Your task to perform on an android device: Search for cool wooden wall art on Etsy. Image 0: 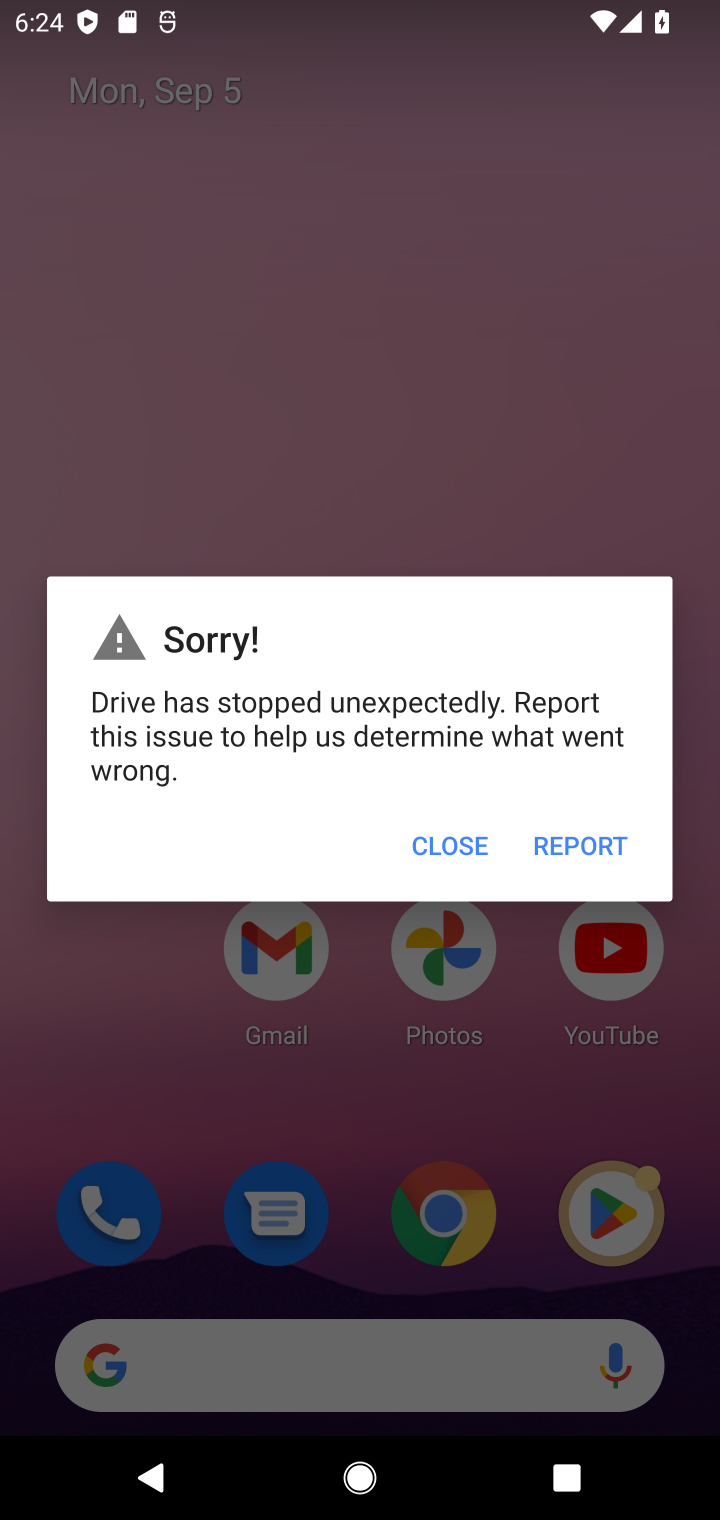
Step 0: press home button
Your task to perform on an android device: Search for cool wooden wall art on Etsy. Image 1: 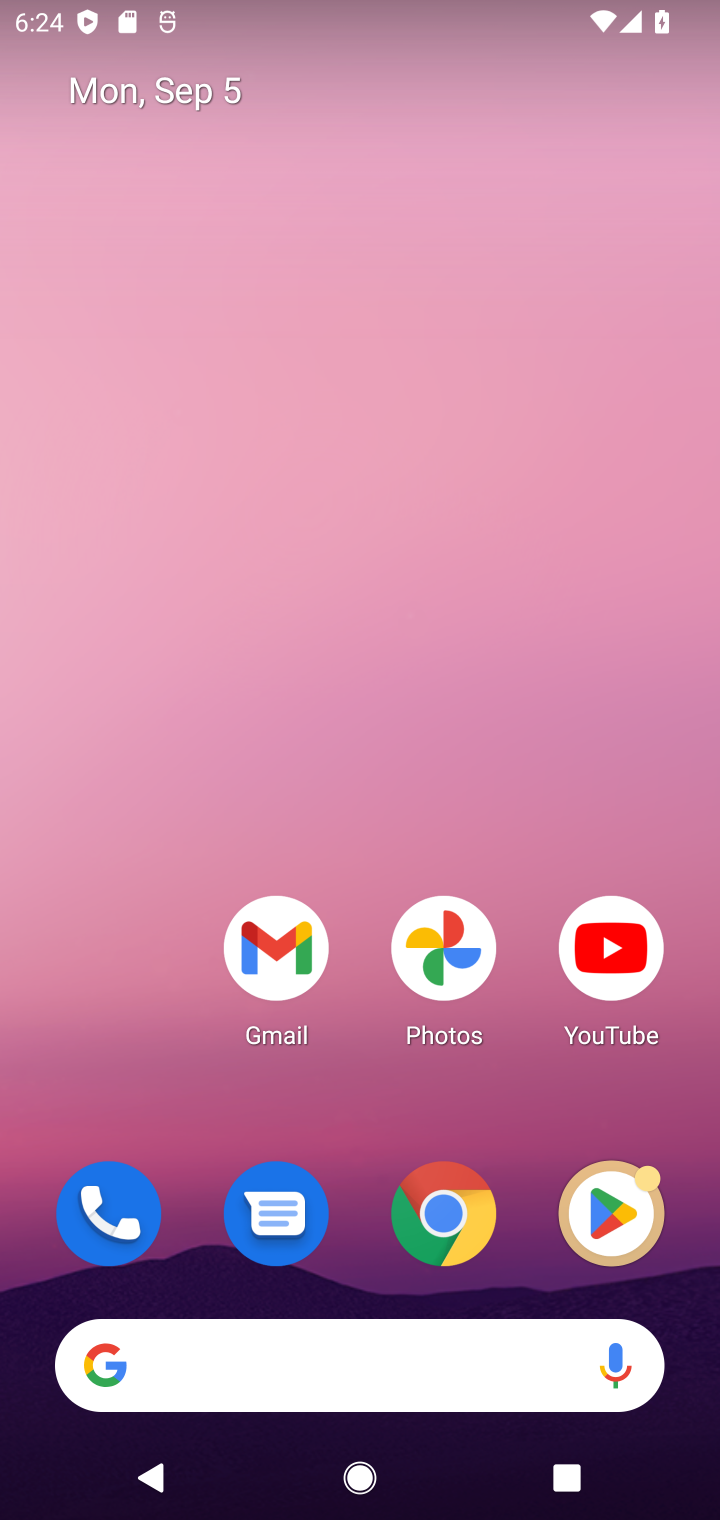
Step 1: click (447, 1236)
Your task to perform on an android device: Search for cool wooden wall art on Etsy. Image 2: 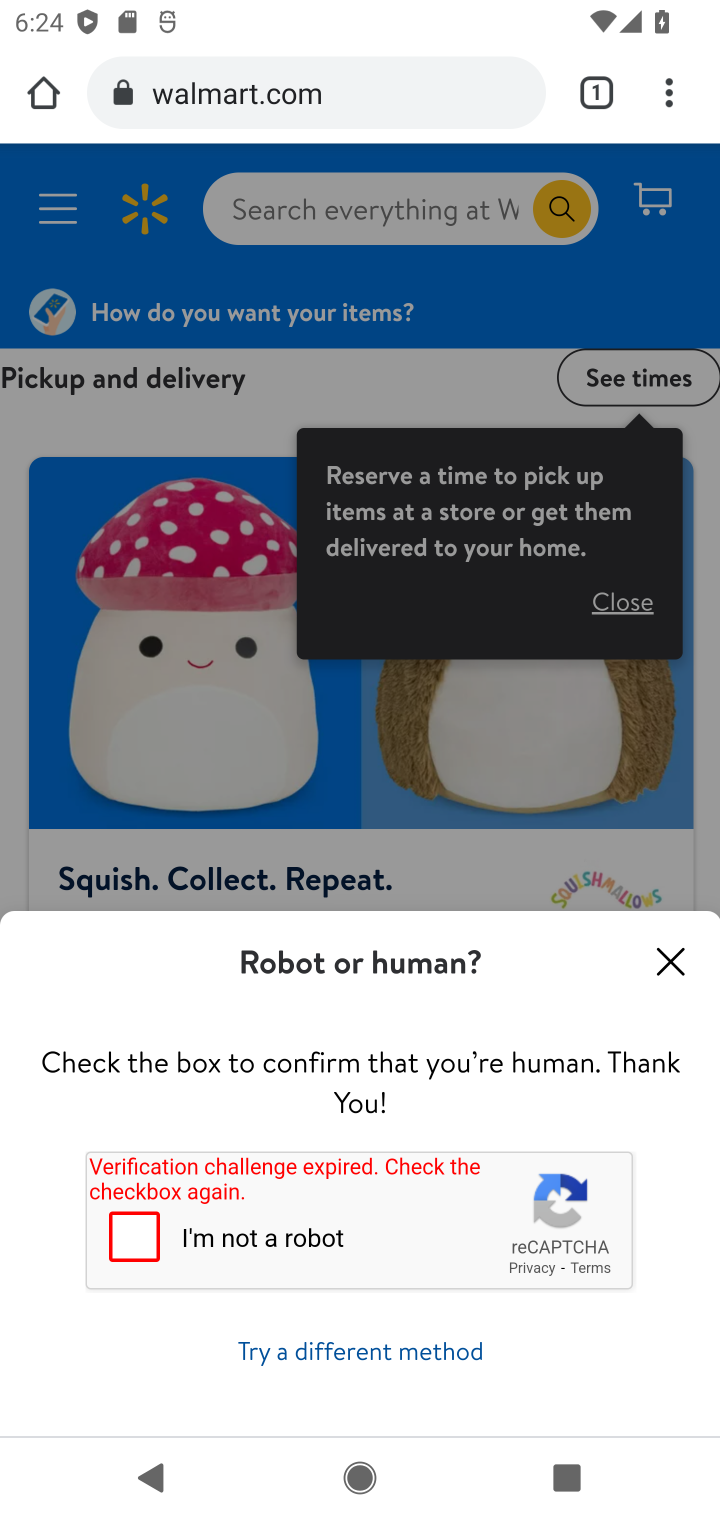
Step 2: click (682, 967)
Your task to perform on an android device: Search for cool wooden wall art on Etsy. Image 3: 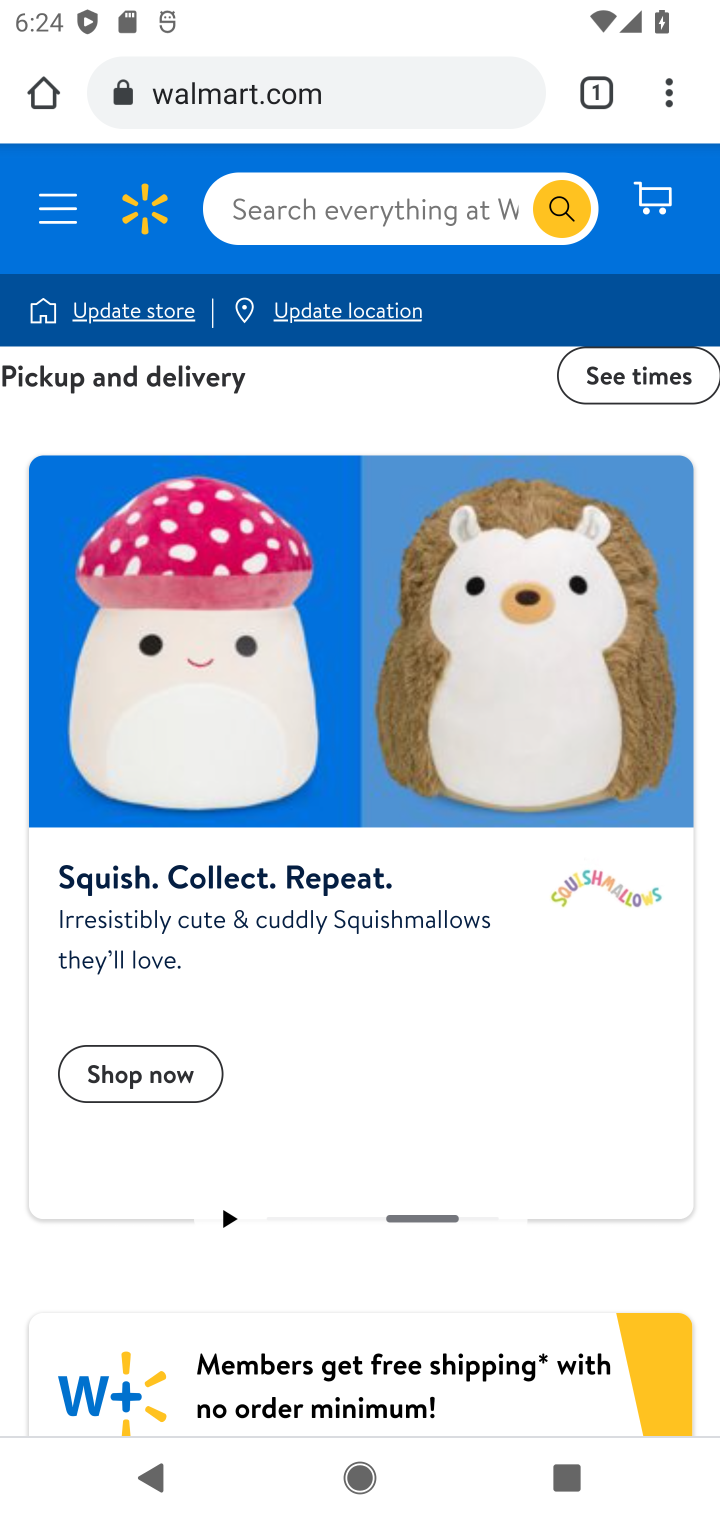
Step 3: click (246, 101)
Your task to perform on an android device: Search for cool wooden wall art on Etsy. Image 4: 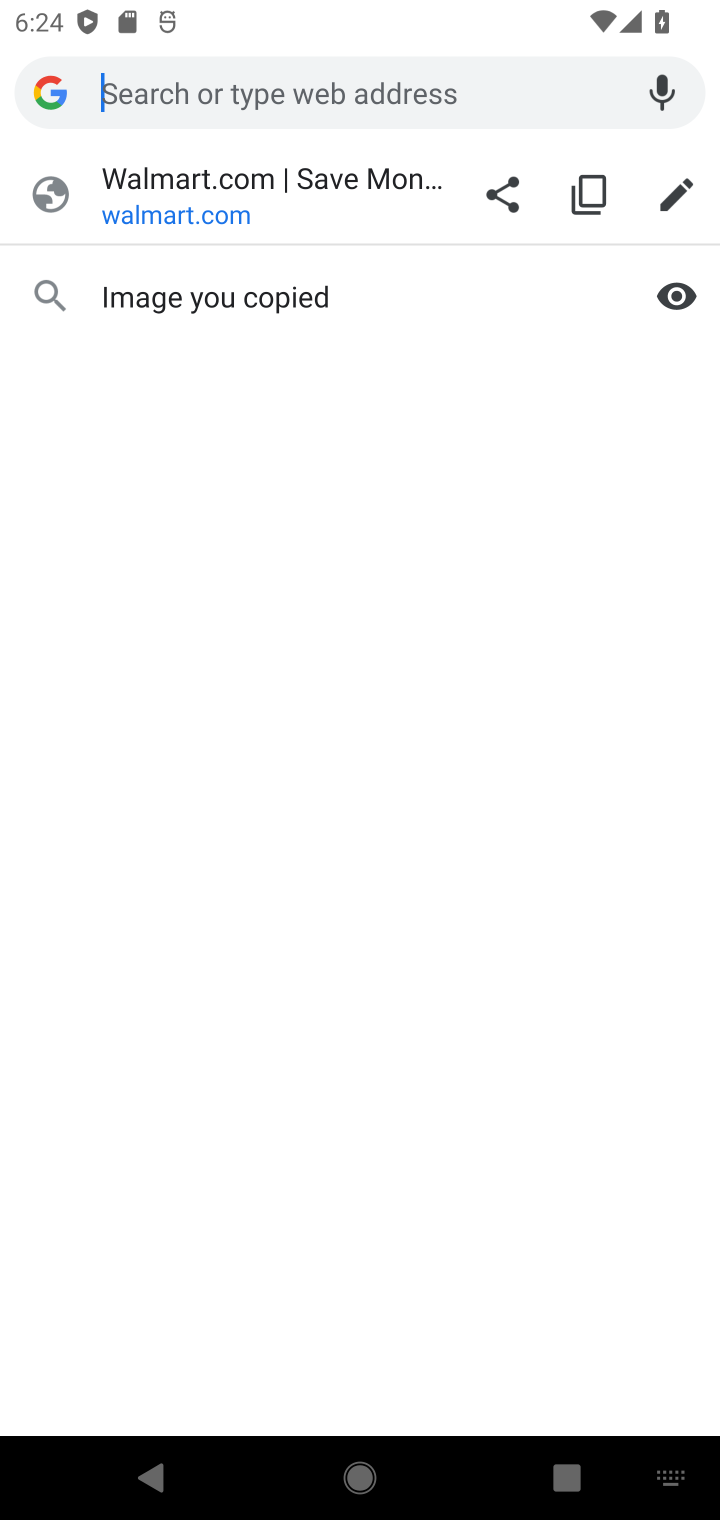
Step 4: type "etsy"
Your task to perform on an android device: Search for cool wooden wall art on Etsy. Image 5: 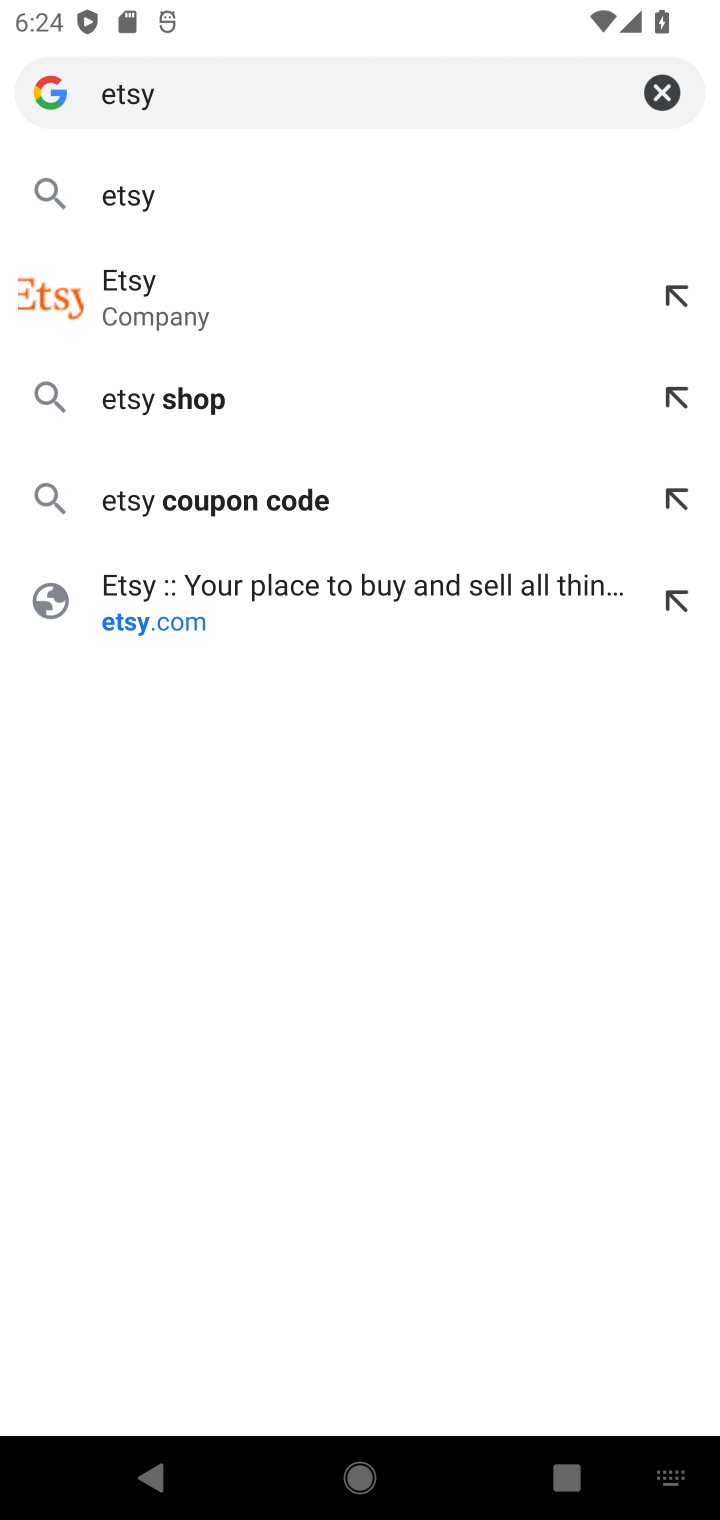
Step 5: click (134, 213)
Your task to perform on an android device: Search for cool wooden wall art on Etsy. Image 6: 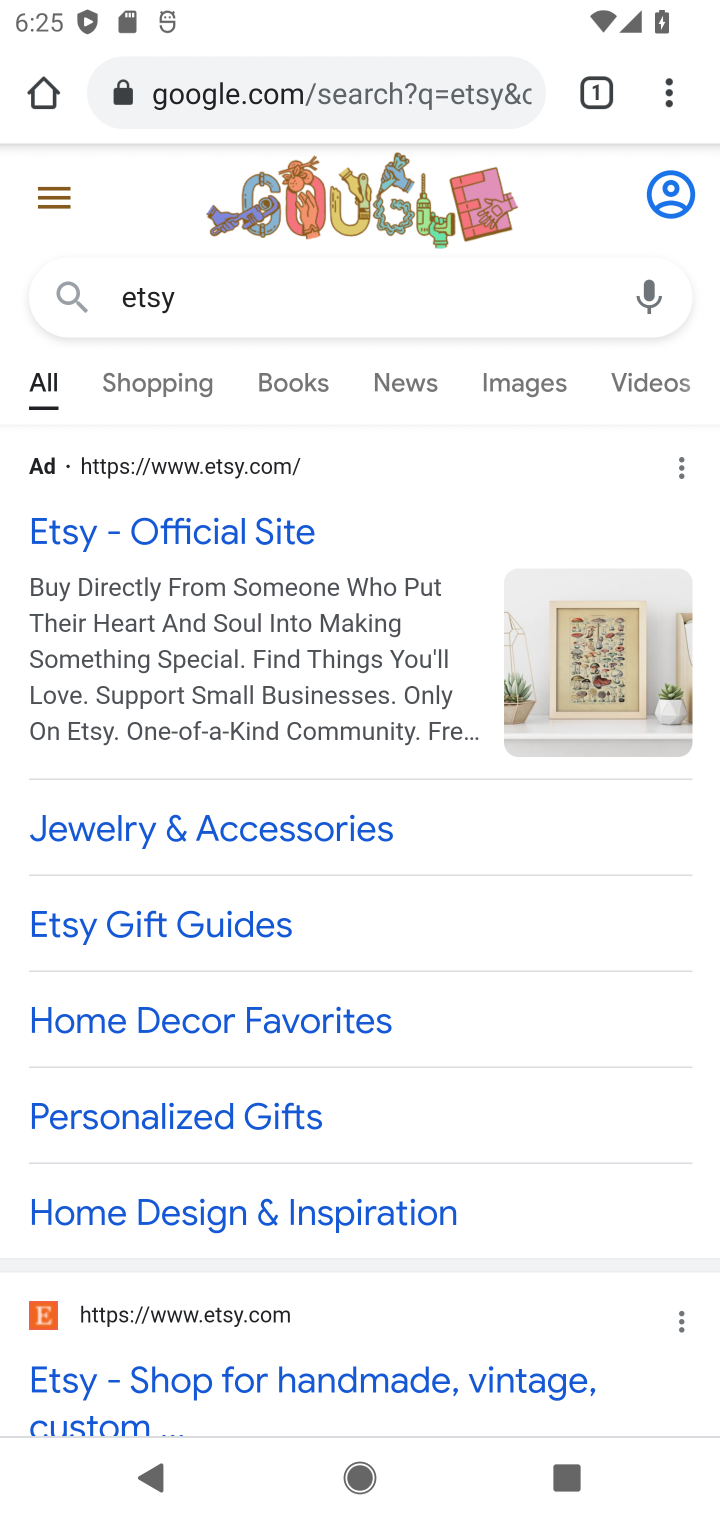
Step 6: click (143, 542)
Your task to perform on an android device: Search for cool wooden wall art on Etsy. Image 7: 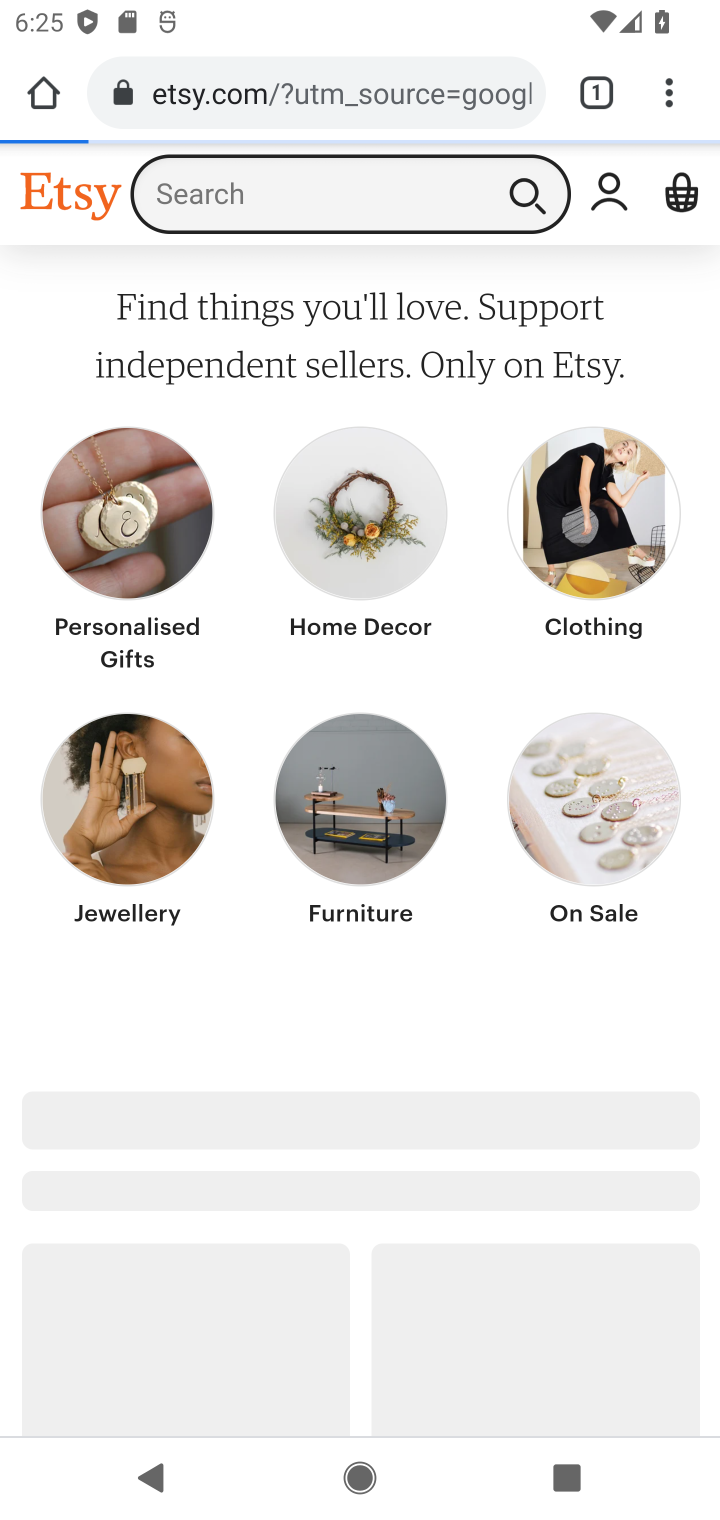
Step 7: click (124, 554)
Your task to perform on an android device: Search for cool wooden wall art on Etsy. Image 8: 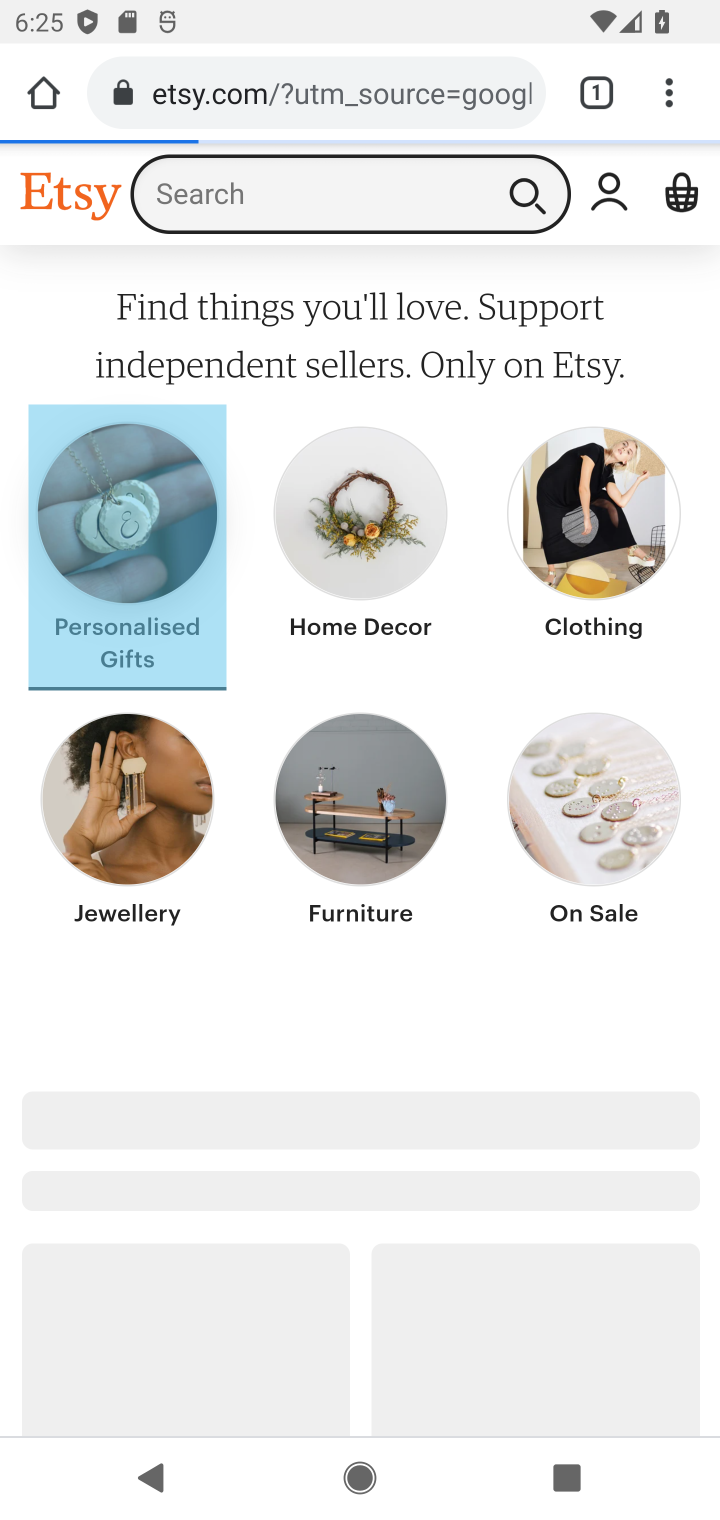
Step 8: click (309, 245)
Your task to perform on an android device: Search for cool wooden wall art on Etsy. Image 9: 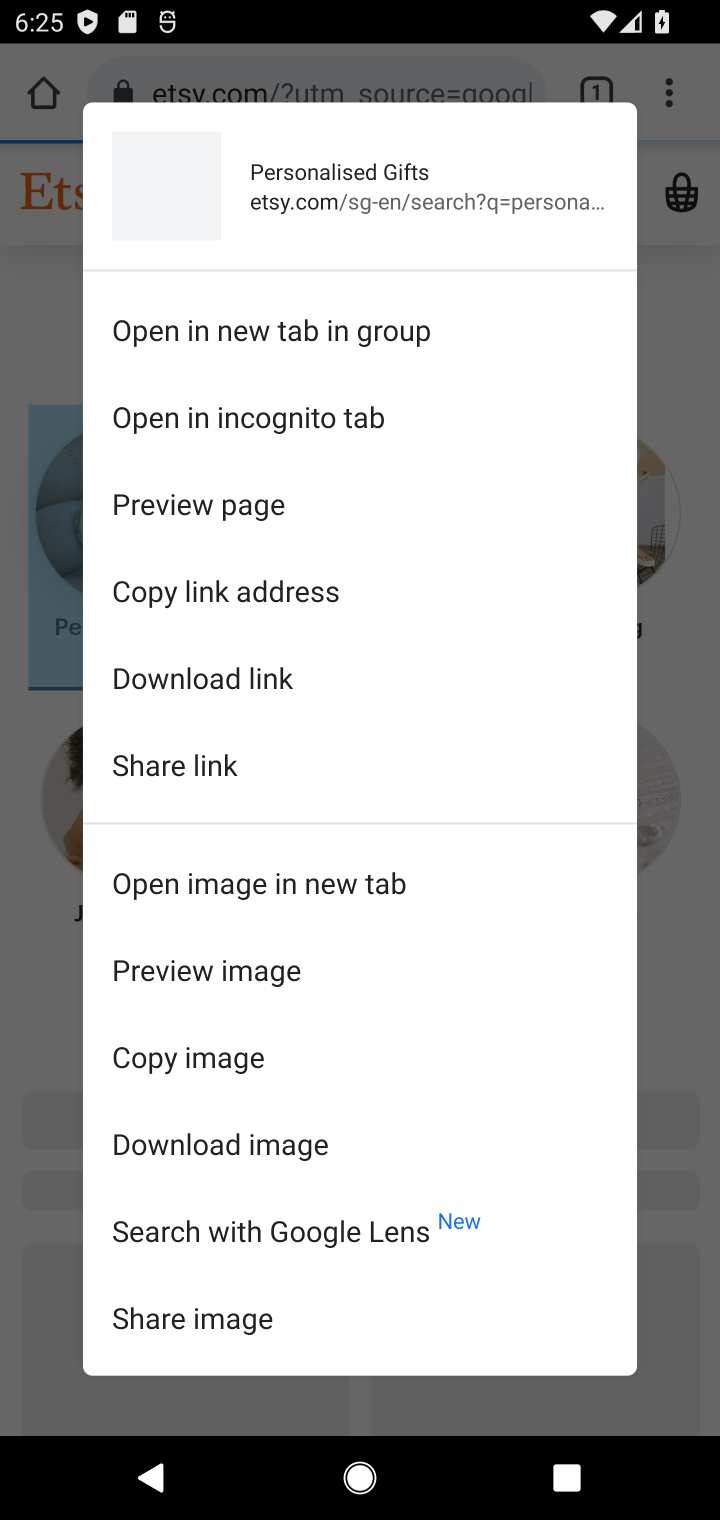
Step 9: click (309, 225)
Your task to perform on an android device: Search for cool wooden wall art on Etsy. Image 10: 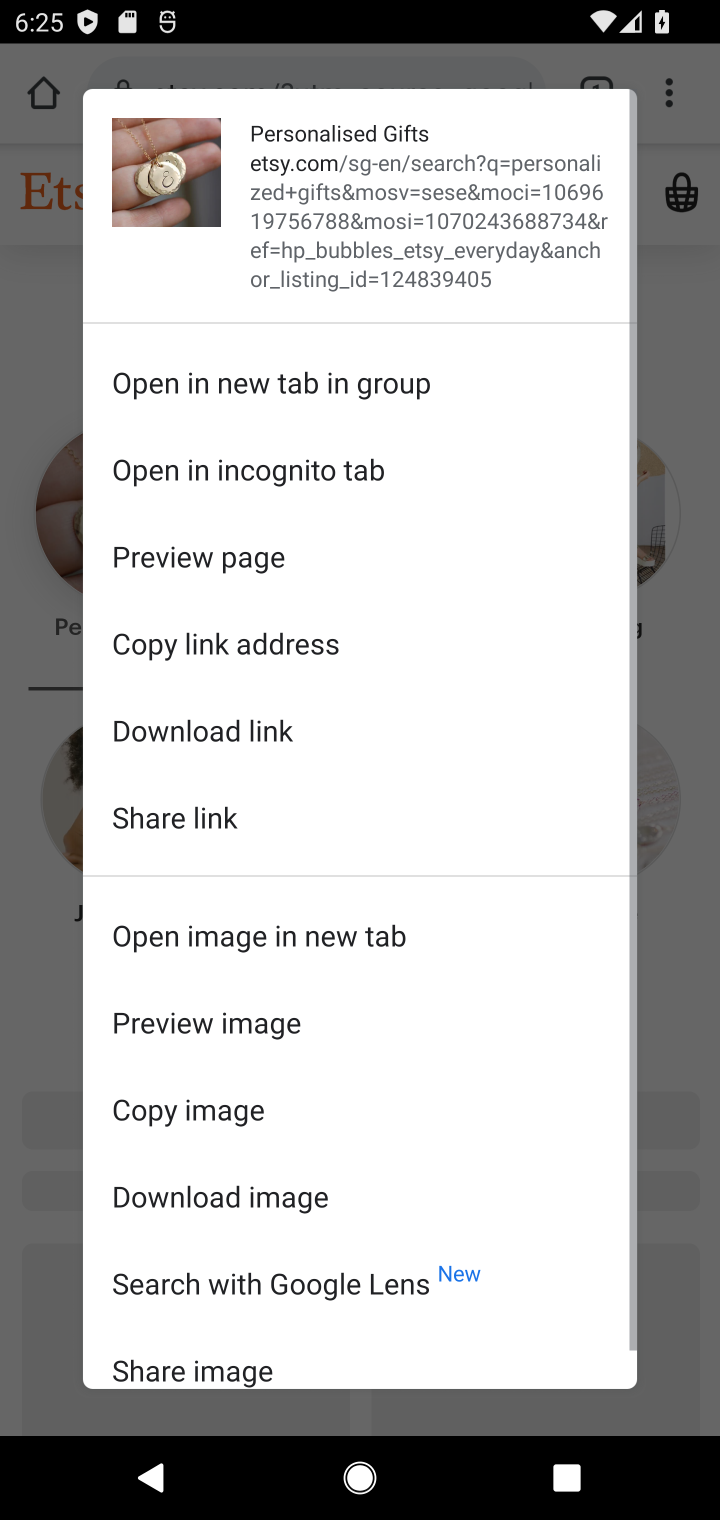
Step 10: click (59, 218)
Your task to perform on an android device: Search for cool wooden wall art on Etsy. Image 11: 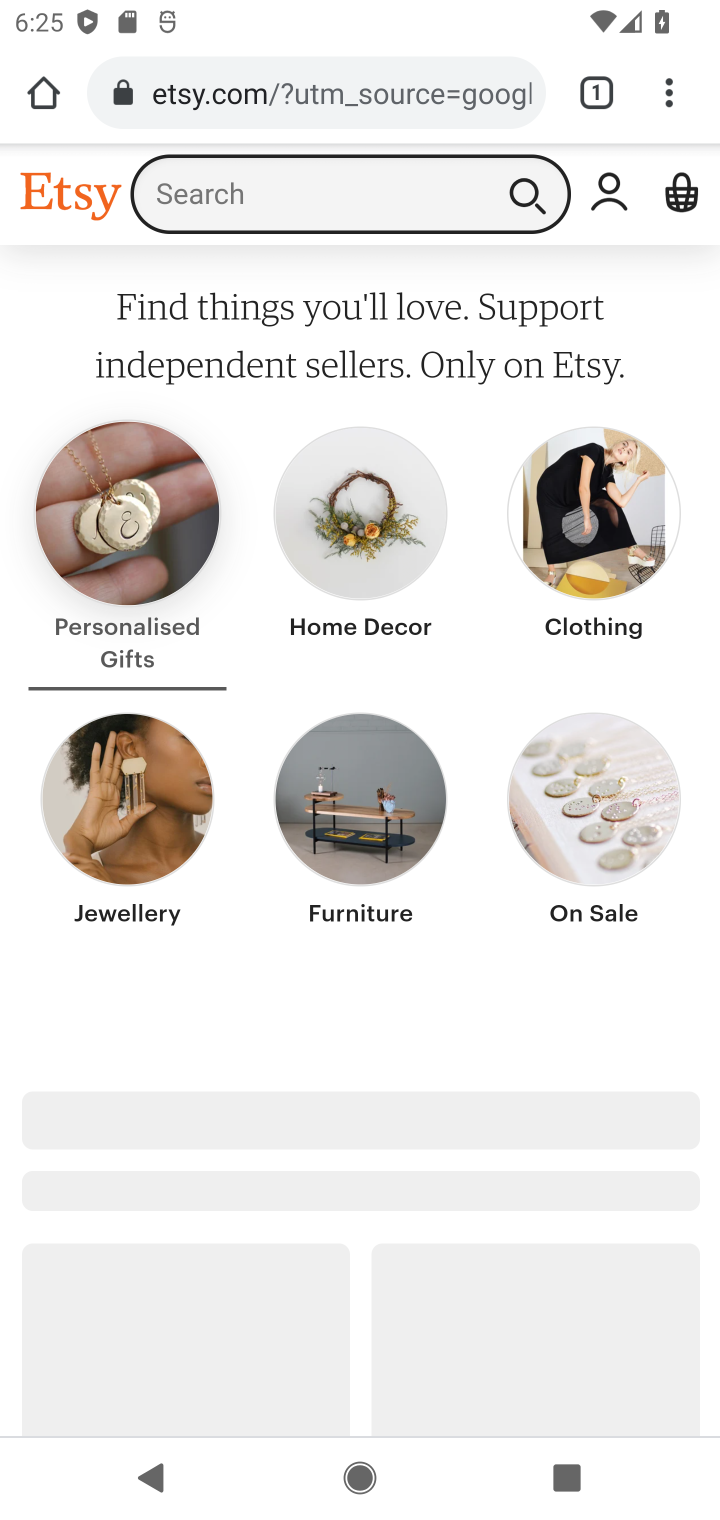
Step 11: click (235, 209)
Your task to perform on an android device: Search for cool wooden wall art on Etsy. Image 12: 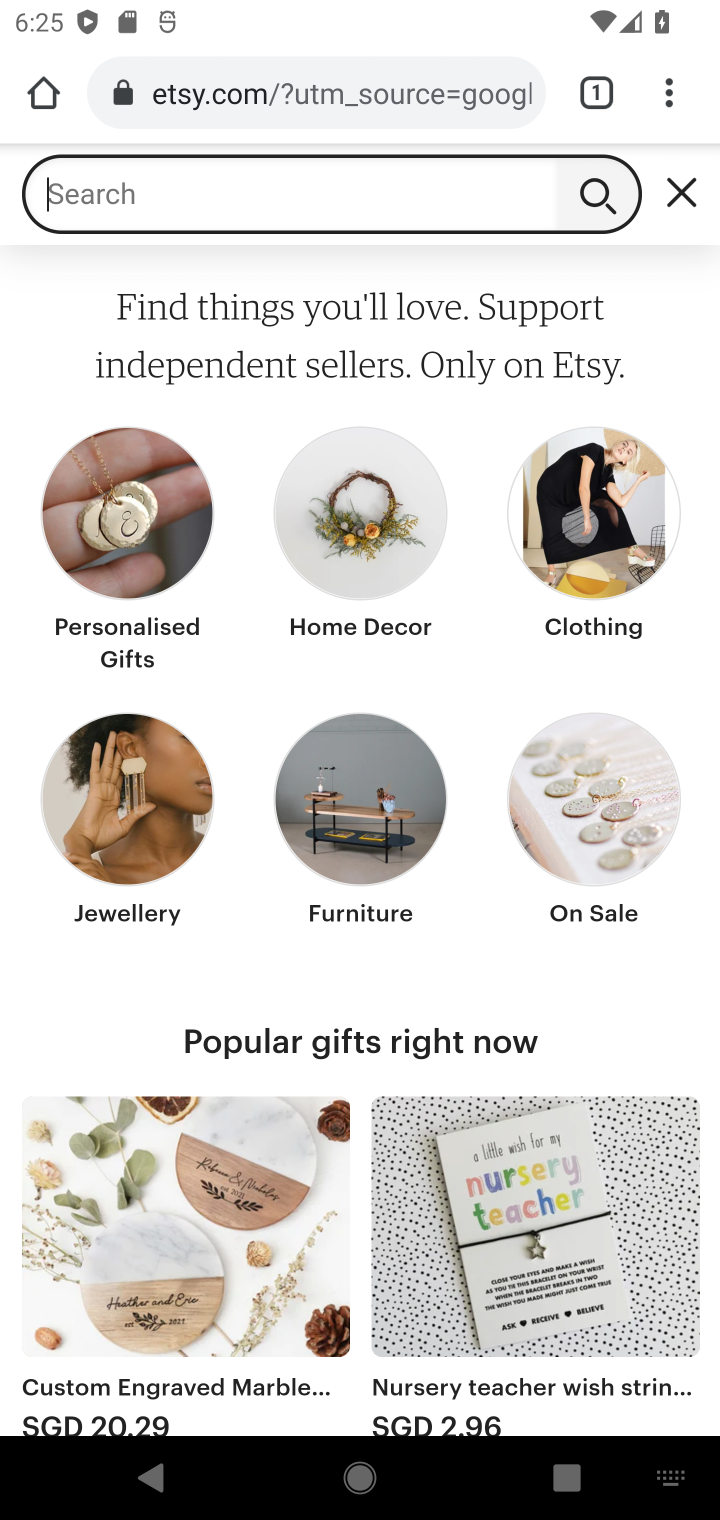
Step 12: click (361, 811)
Your task to perform on an android device: Search for cool wooden wall art on Etsy. Image 13: 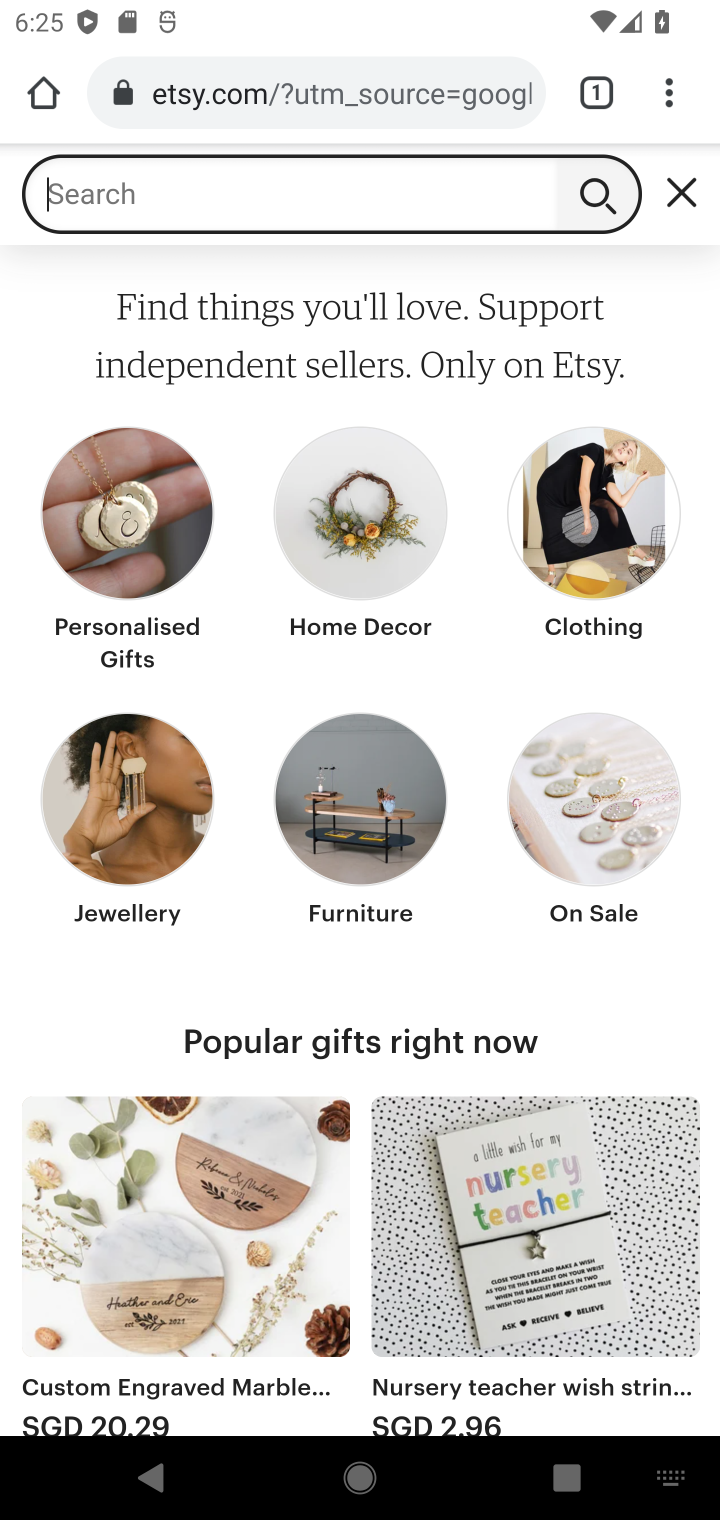
Step 13: click (265, 209)
Your task to perform on an android device: Search for cool wooden wall art on Etsy. Image 14: 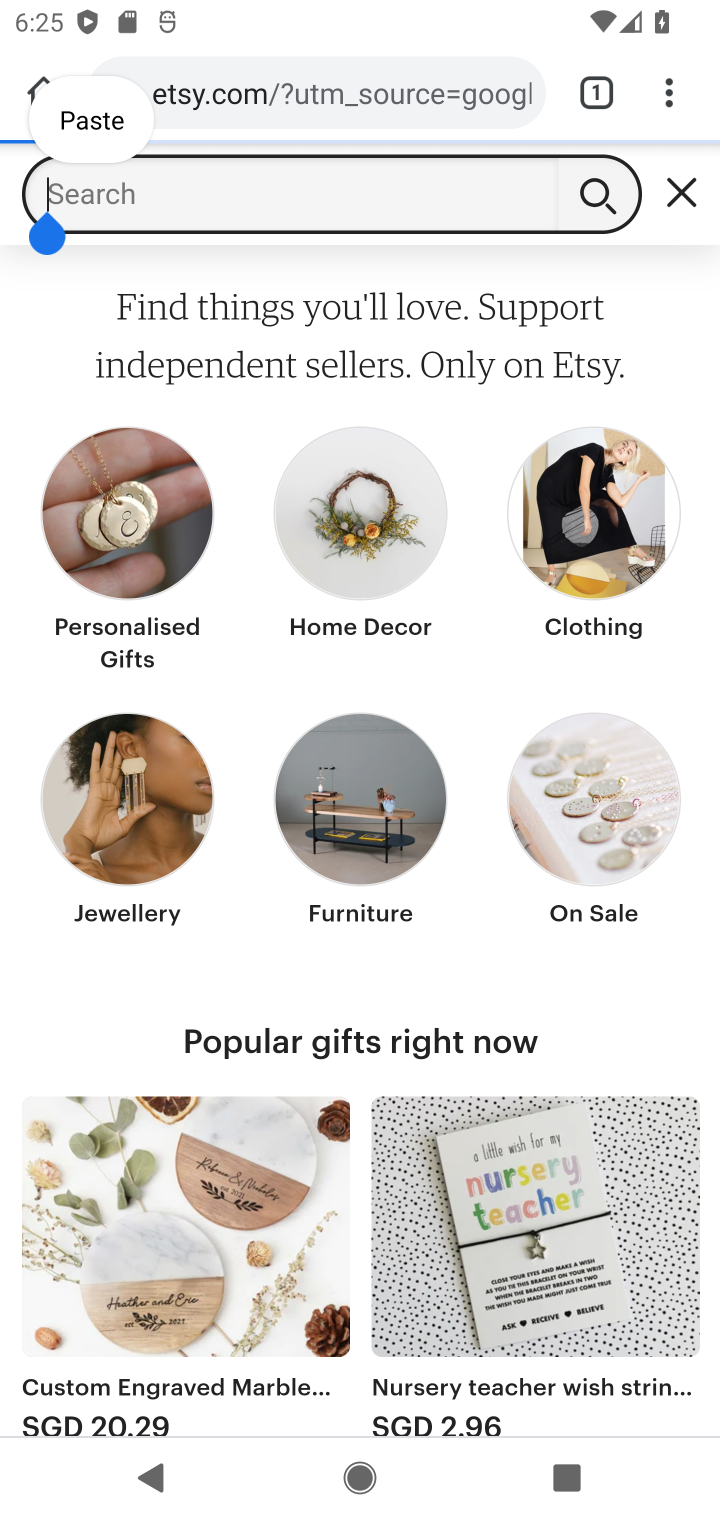
Step 14: type "cool wooden wall art"
Your task to perform on an android device: Search for cool wooden wall art on Etsy. Image 15: 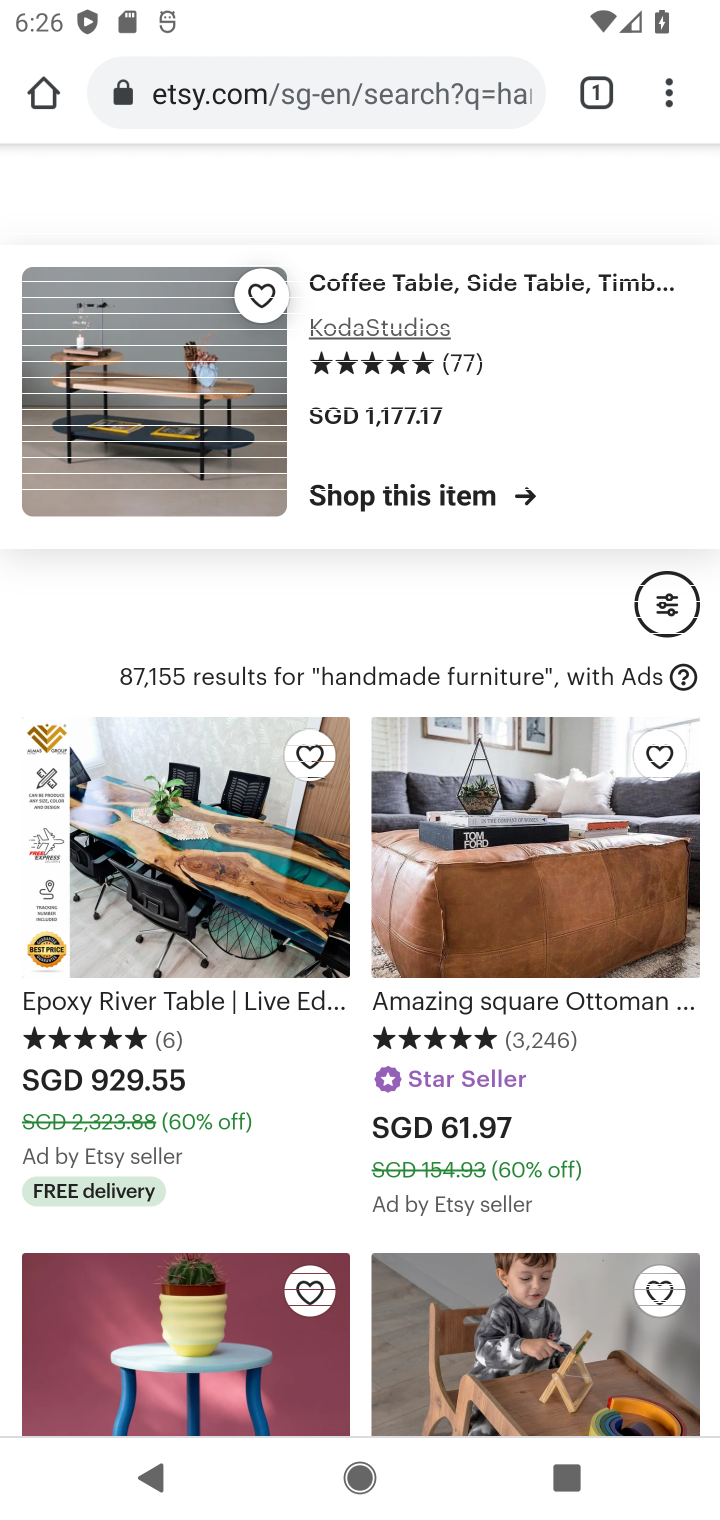
Step 15: drag from (371, 735) to (384, 626)
Your task to perform on an android device: Search for cool wooden wall art on Etsy. Image 16: 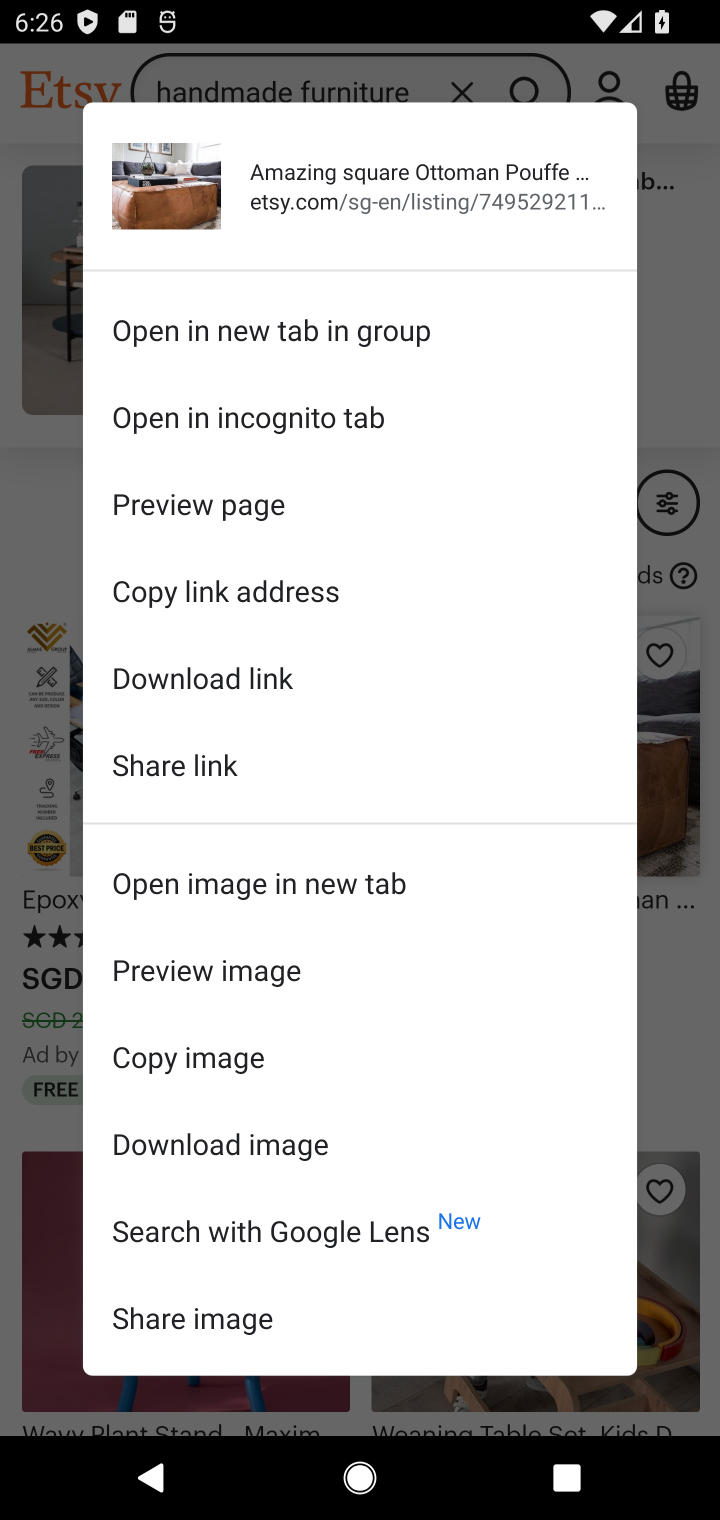
Step 16: click (696, 1011)
Your task to perform on an android device: Search for cool wooden wall art on Etsy. Image 17: 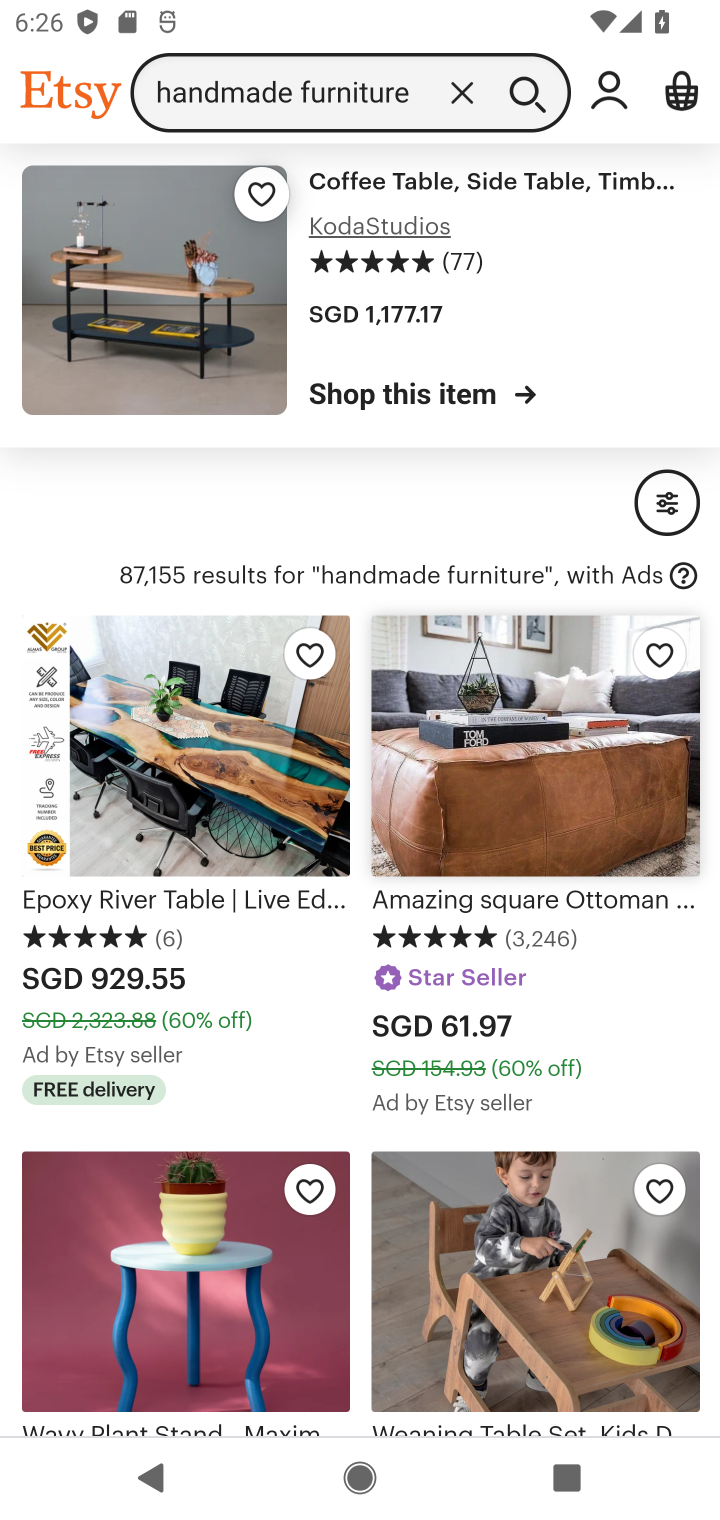
Step 17: task complete